Your task to perform on an android device: Open Chrome and go to settings Image 0: 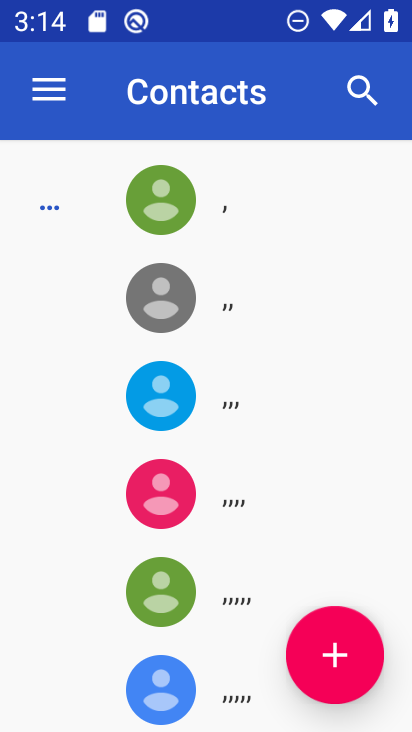
Step 0: press home button
Your task to perform on an android device: Open Chrome and go to settings Image 1: 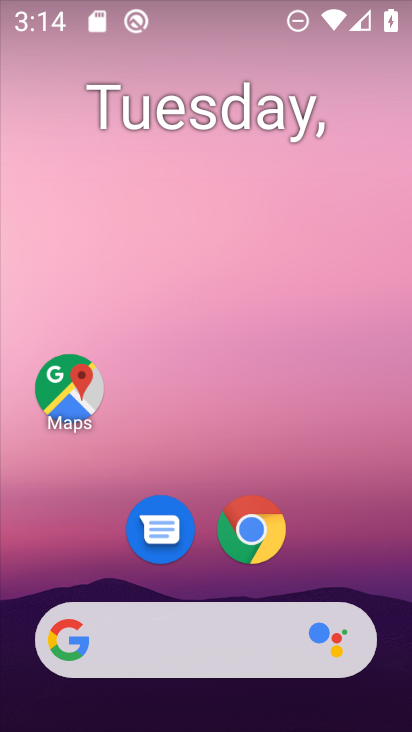
Step 1: click (260, 527)
Your task to perform on an android device: Open Chrome and go to settings Image 2: 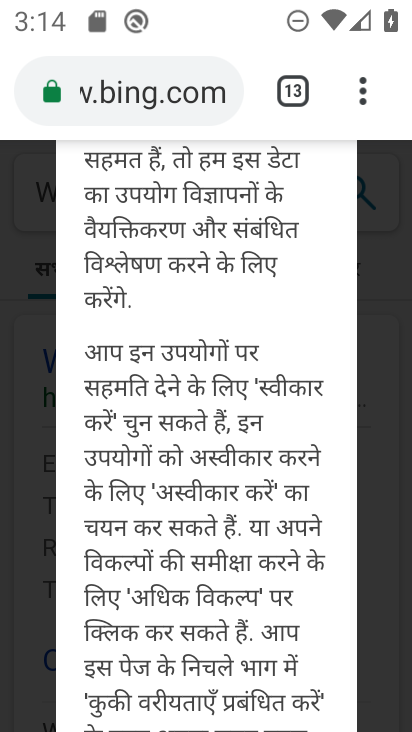
Step 2: task complete